Your task to perform on an android device: refresh tabs in the chrome app Image 0: 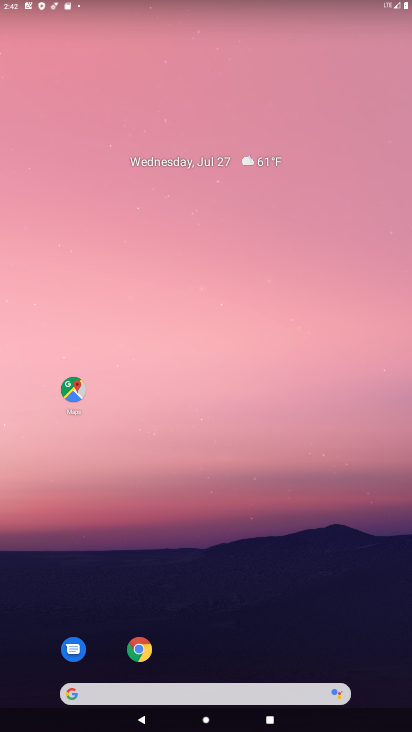
Step 0: click (143, 652)
Your task to perform on an android device: refresh tabs in the chrome app Image 1: 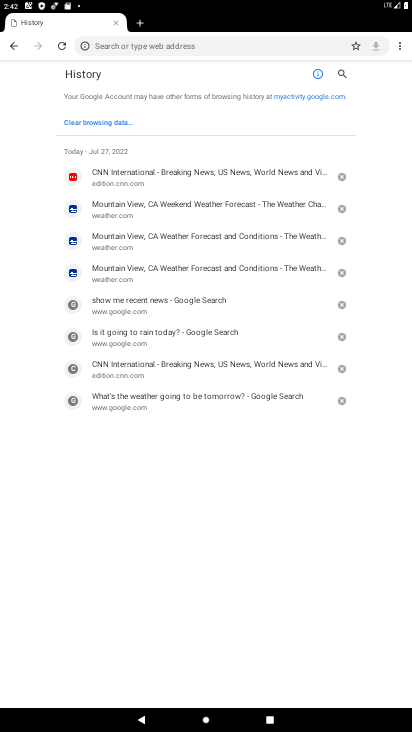
Step 1: click (62, 43)
Your task to perform on an android device: refresh tabs in the chrome app Image 2: 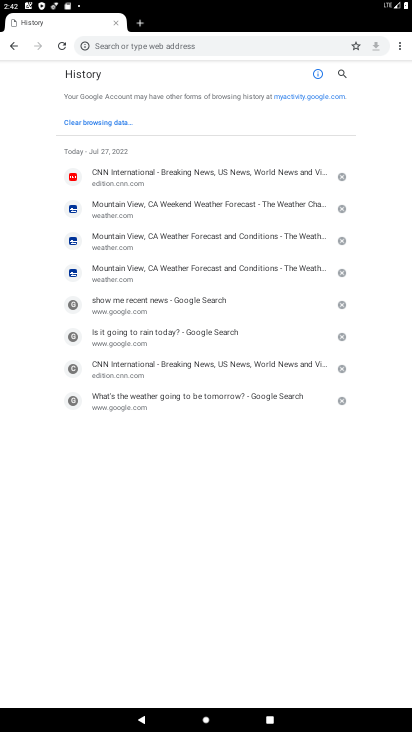
Step 2: task complete